Your task to perform on an android device: add a contact in the contacts app Image 0: 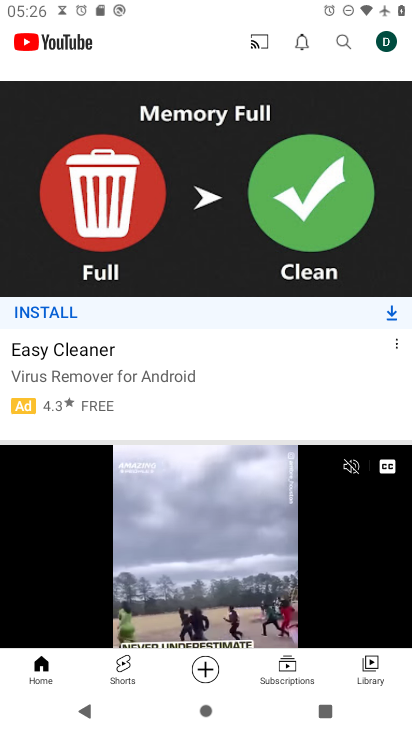
Step 0: press back button
Your task to perform on an android device: add a contact in the contacts app Image 1: 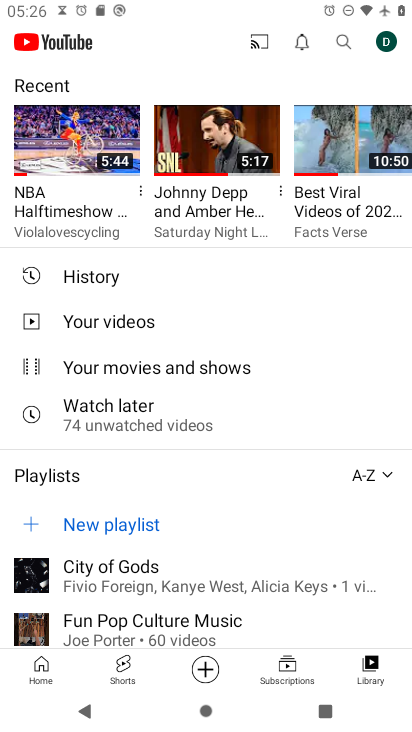
Step 1: press back button
Your task to perform on an android device: add a contact in the contacts app Image 2: 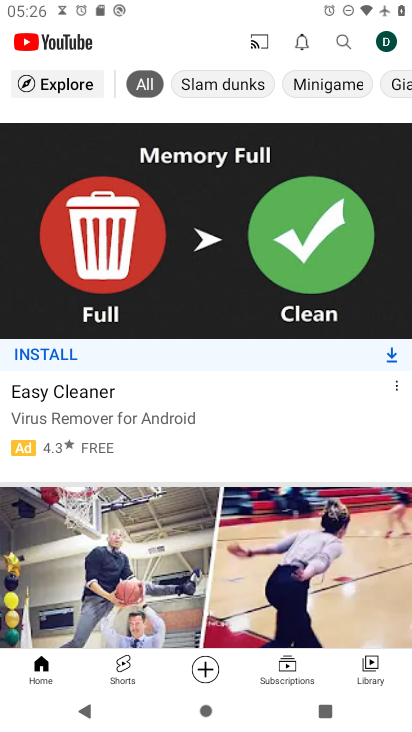
Step 2: press home button
Your task to perform on an android device: add a contact in the contacts app Image 3: 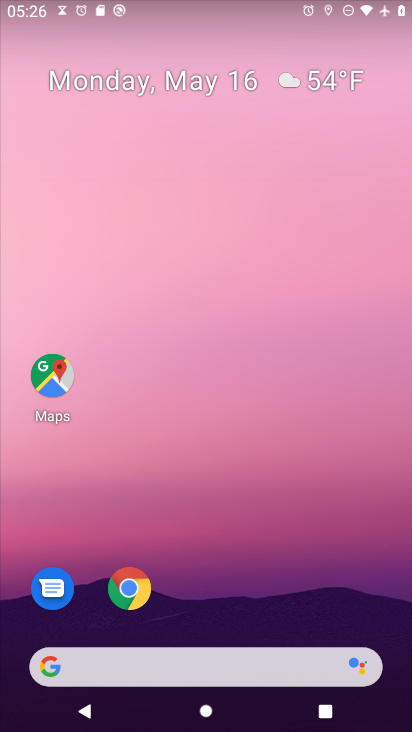
Step 3: drag from (245, 554) to (208, 14)
Your task to perform on an android device: add a contact in the contacts app Image 4: 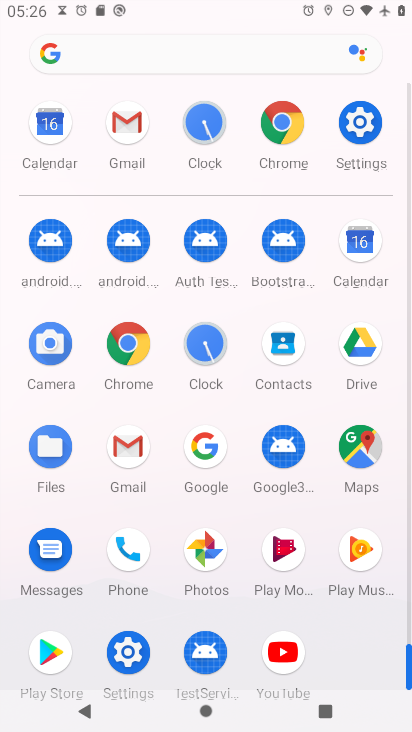
Step 4: drag from (5, 561) to (3, 275)
Your task to perform on an android device: add a contact in the contacts app Image 5: 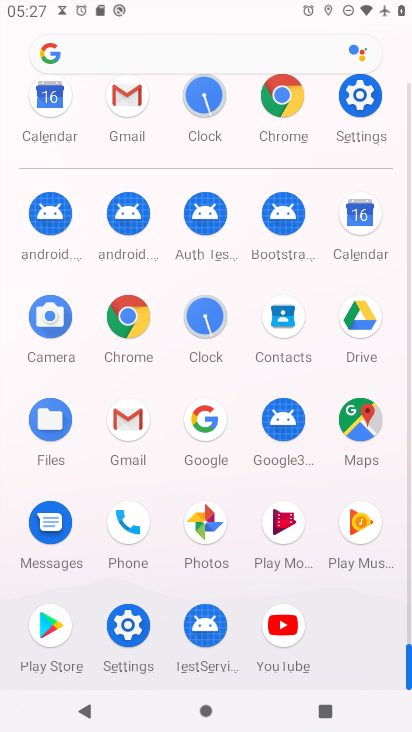
Step 5: click (281, 309)
Your task to perform on an android device: add a contact in the contacts app Image 6: 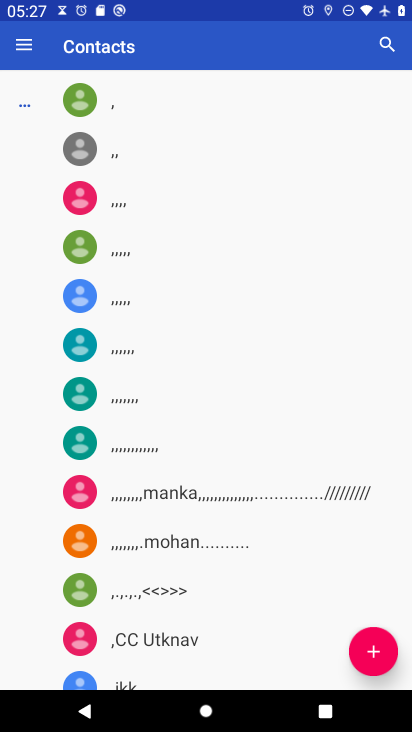
Step 6: click (370, 647)
Your task to perform on an android device: add a contact in the contacts app Image 7: 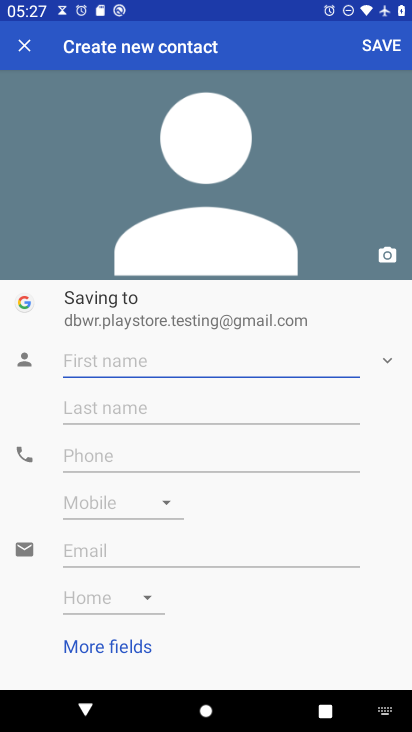
Step 7: type "dfds"
Your task to perform on an android device: add a contact in the contacts app Image 8: 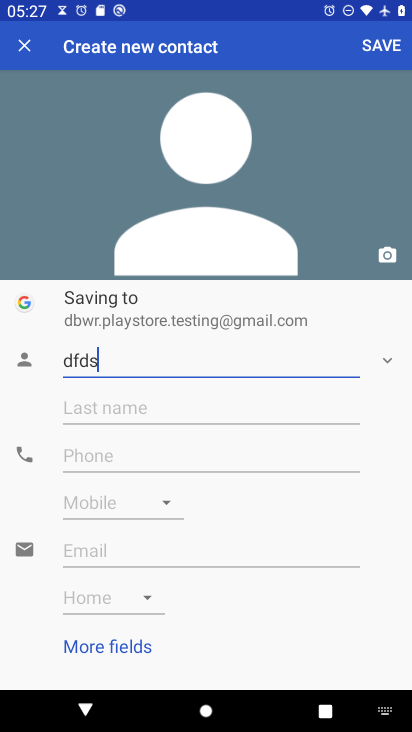
Step 8: type ""
Your task to perform on an android device: add a contact in the contacts app Image 9: 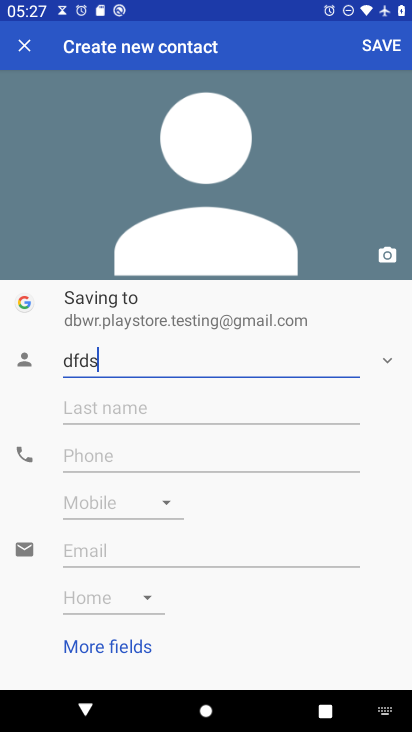
Step 9: click (137, 458)
Your task to perform on an android device: add a contact in the contacts app Image 10: 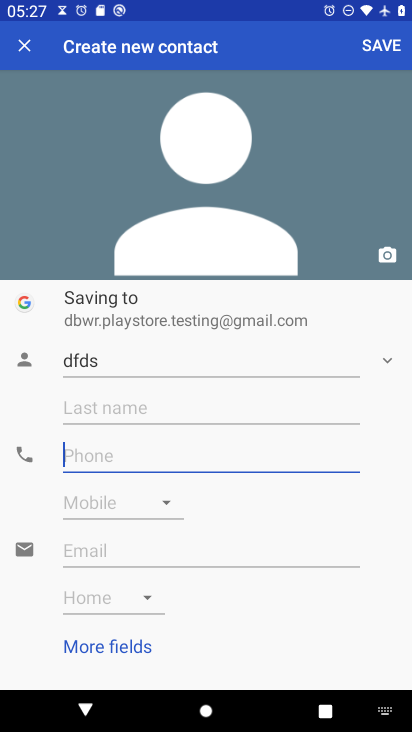
Step 10: type "345678987"
Your task to perform on an android device: add a contact in the contacts app Image 11: 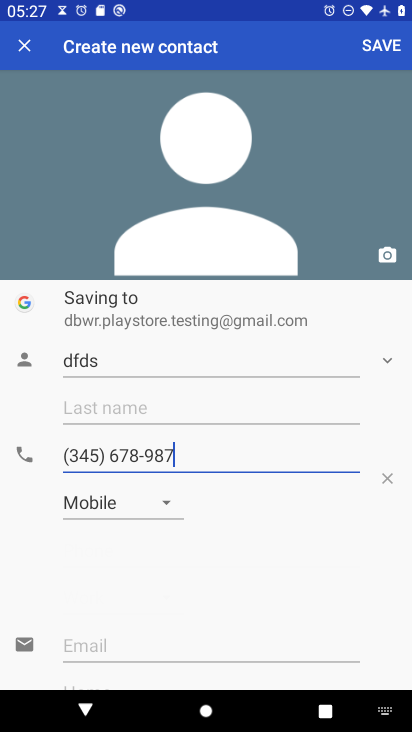
Step 11: type ""
Your task to perform on an android device: add a contact in the contacts app Image 12: 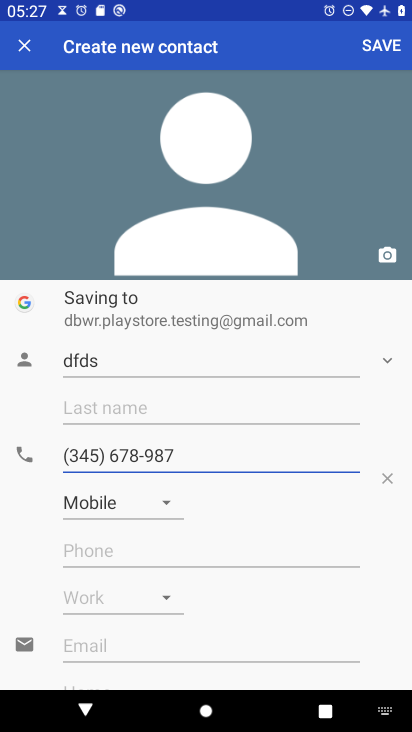
Step 12: click (387, 44)
Your task to perform on an android device: add a contact in the contacts app Image 13: 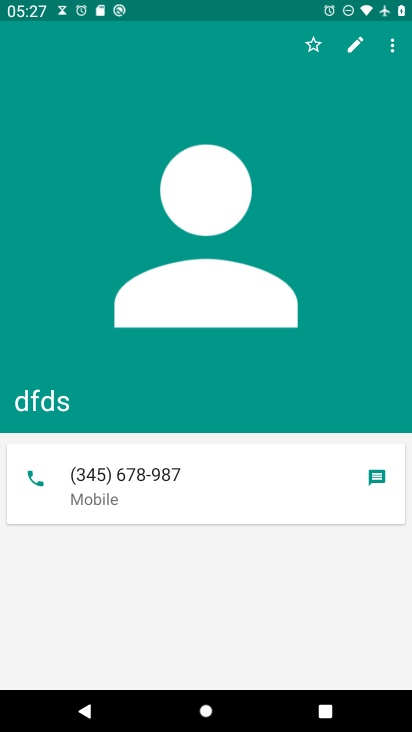
Step 13: task complete